Your task to perform on an android device: turn on priority inbox in the gmail app Image 0: 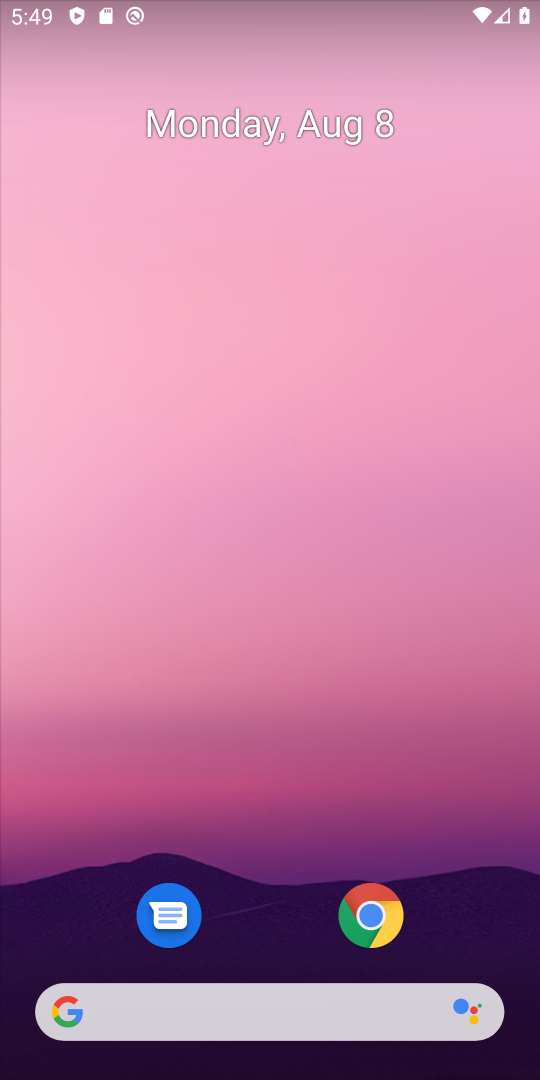
Step 0: press home button
Your task to perform on an android device: turn on priority inbox in the gmail app Image 1: 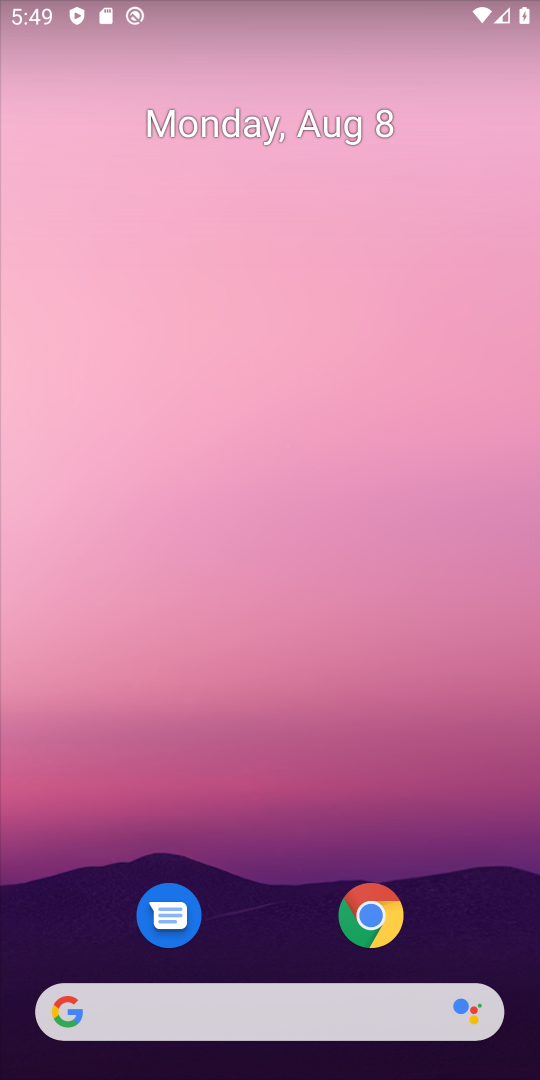
Step 1: drag from (304, 839) to (258, 235)
Your task to perform on an android device: turn on priority inbox in the gmail app Image 2: 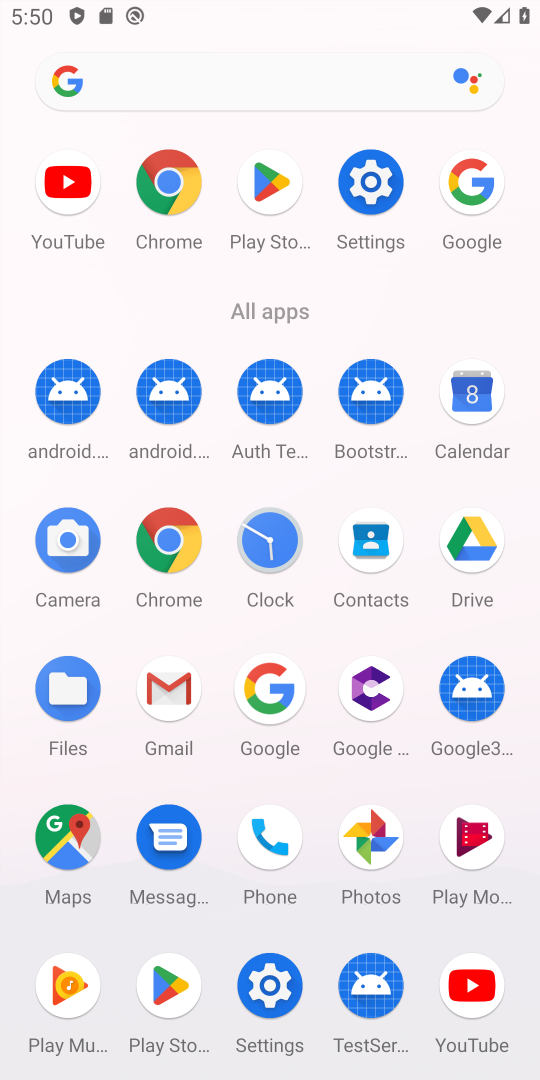
Step 2: click (167, 694)
Your task to perform on an android device: turn on priority inbox in the gmail app Image 3: 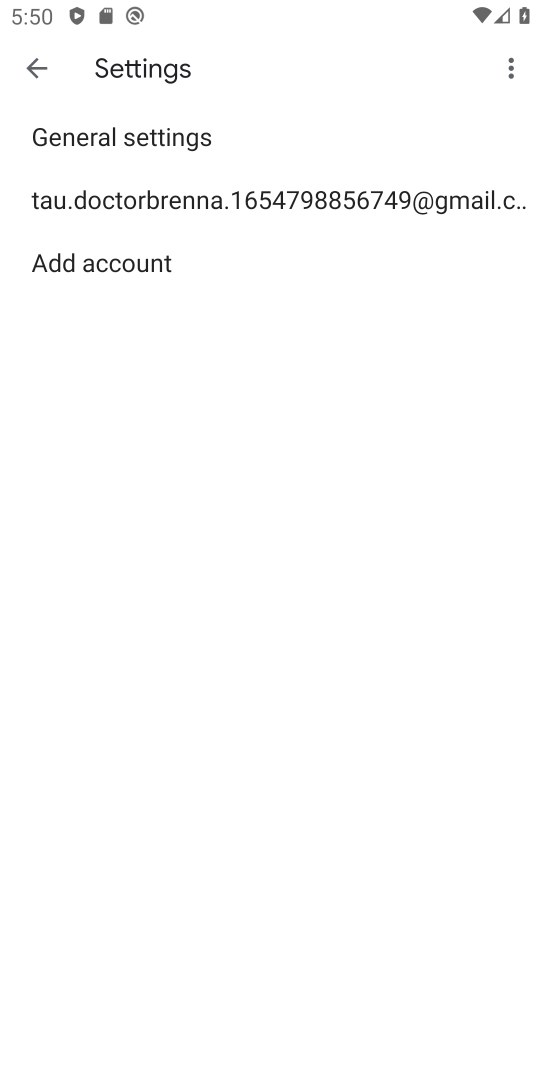
Step 3: click (29, 53)
Your task to perform on an android device: turn on priority inbox in the gmail app Image 4: 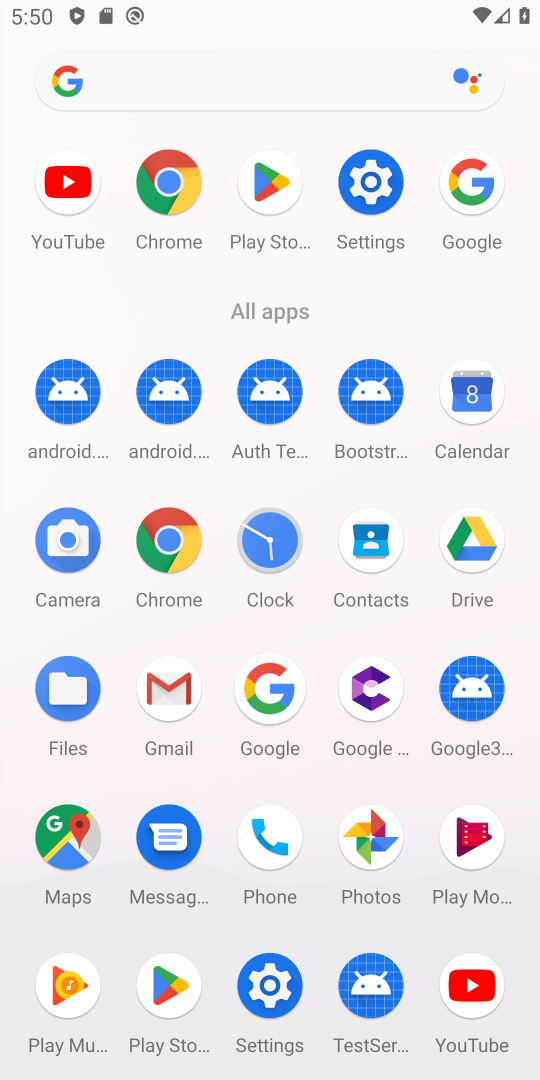
Step 4: click (165, 683)
Your task to perform on an android device: turn on priority inbox in the gmail app Image 5: 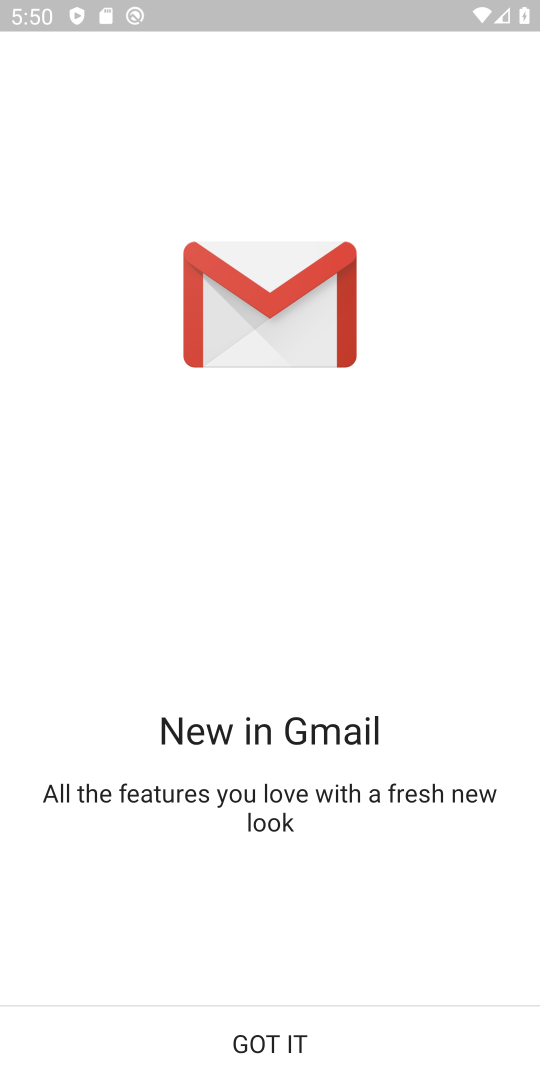
Step 5: click (279, 1054)
Your task to perform on an android device: turn on priority inbox in the gmail app Image 6: 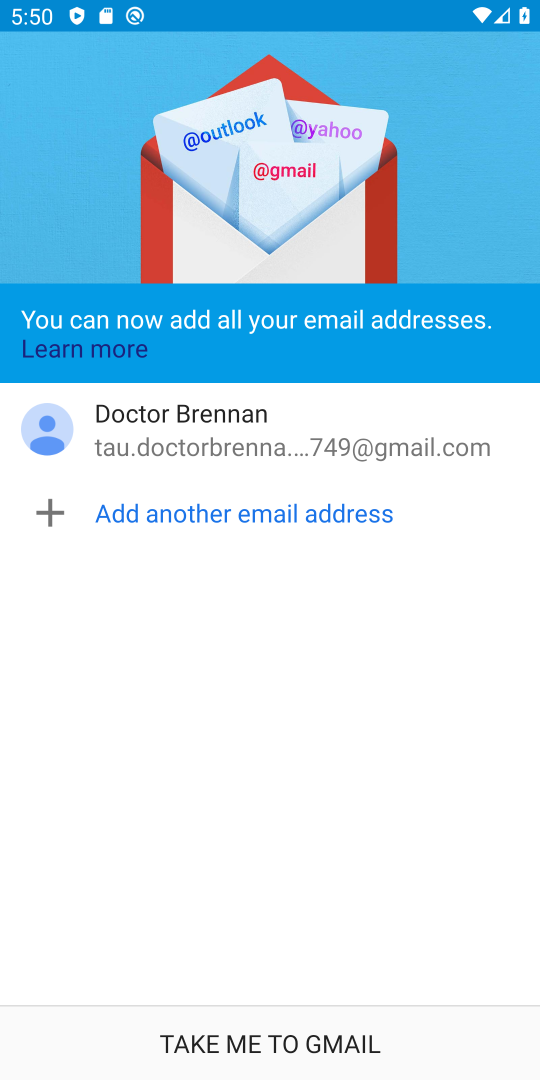
Step 6: click (294, 1034)
Your task to perform on an android device: turn on priority inbox in the gmail app Image 7: 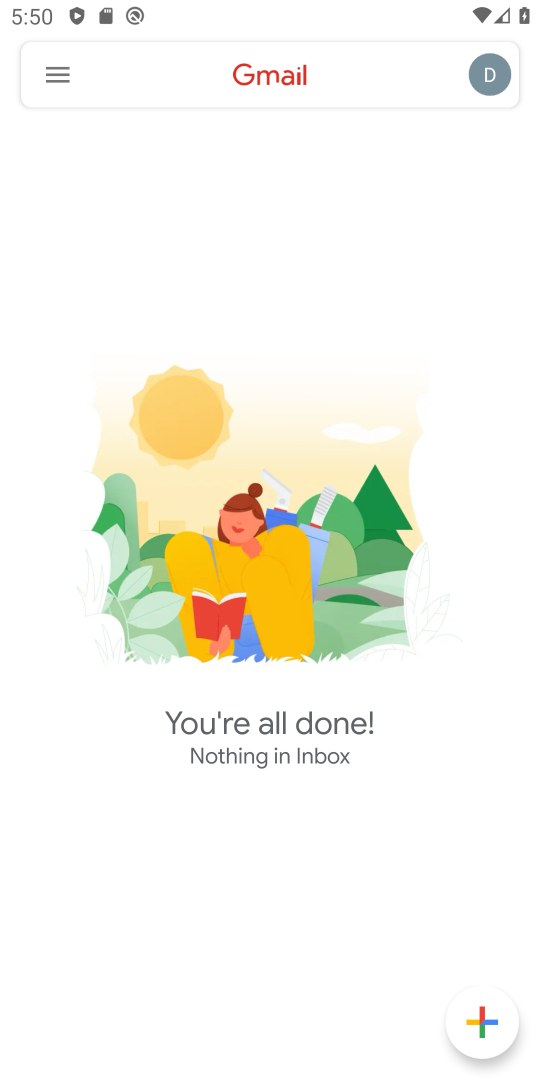
Step 7: click (55, 66)
Your task to perform on an android device: turn on priority inbox in the gmail app Image 8: 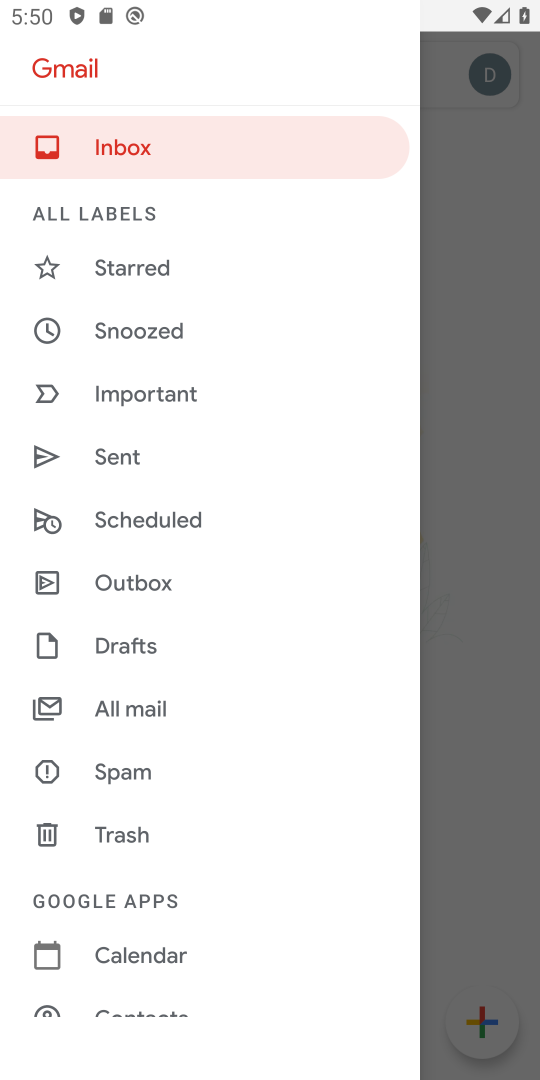
Step 8: drag from (214, 814) to (155, 330)
Your task to perform on an android device: turn on priority inbox in the gmail app Image 9: 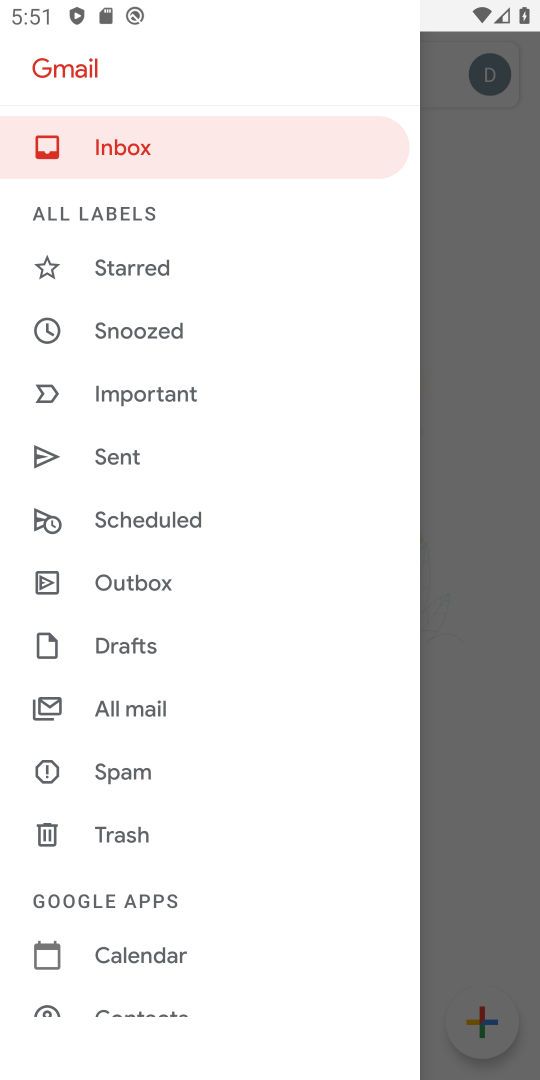
Step 9: click (249, 465)
Your task to perform on an android device: turn on priority inbox in the gmail app Image 10: 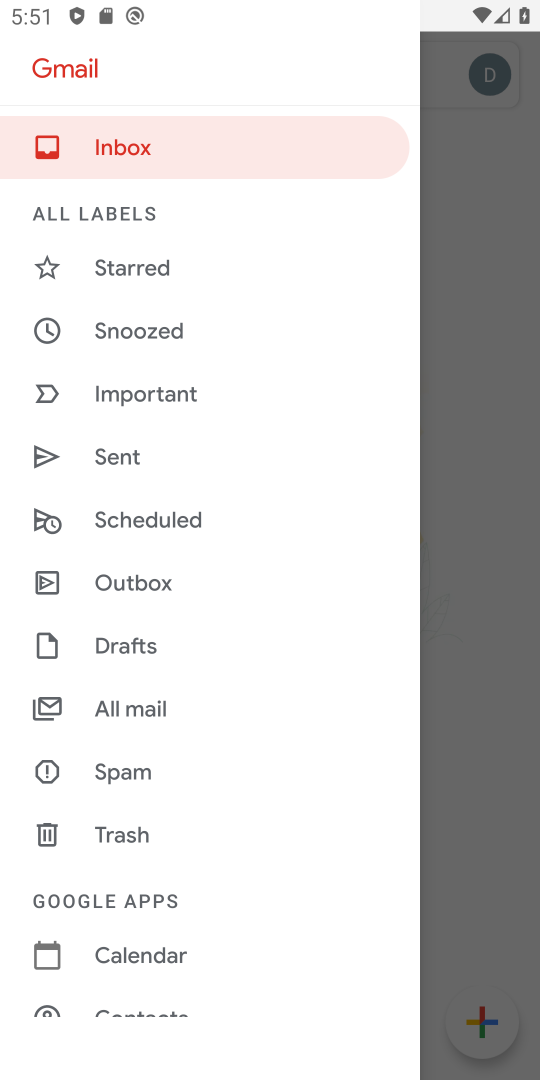
Step 10: drag from (227, 549) to (226, 422)
Your task to perform on an android device: turn on priority inbox in the gmail app Image 11: 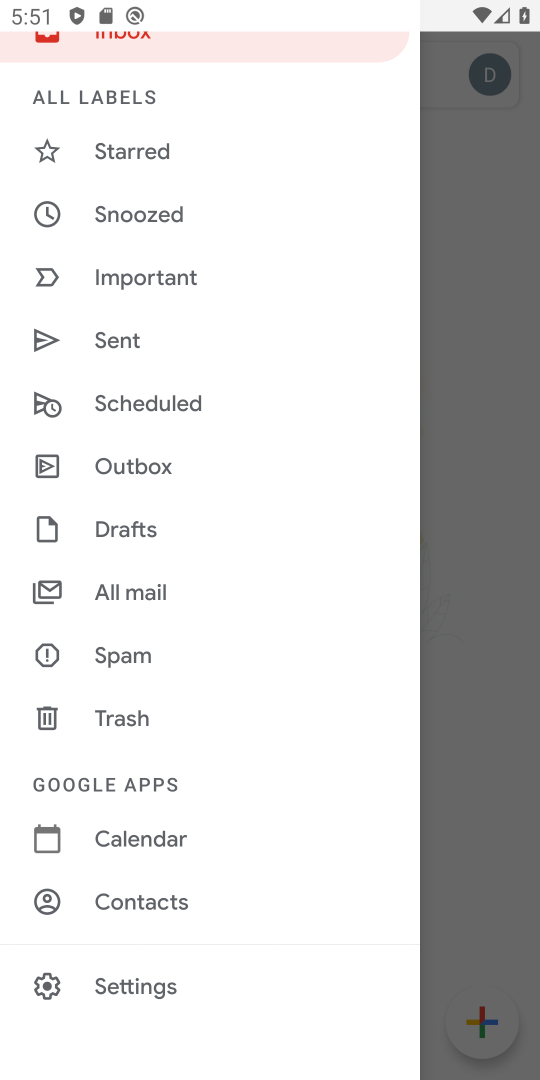
Step 11: click (126, 992)
Your task to perform on an android device: turn on priority inbox in the gmail app Image 12: 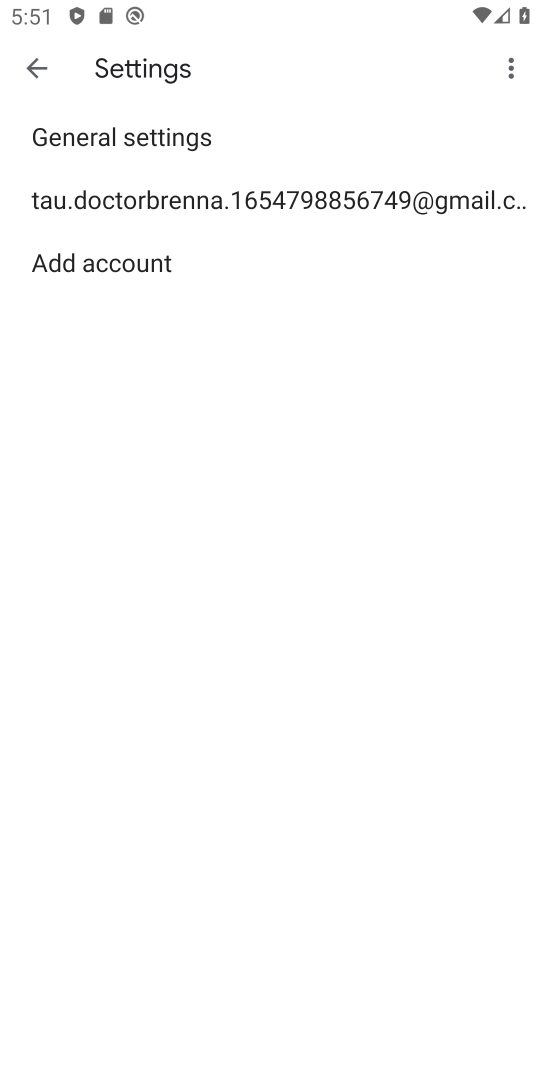
Step 12: click (104, 199)
Your task to perform on an android device: turn on priority inbox in the gmail app Image 13: 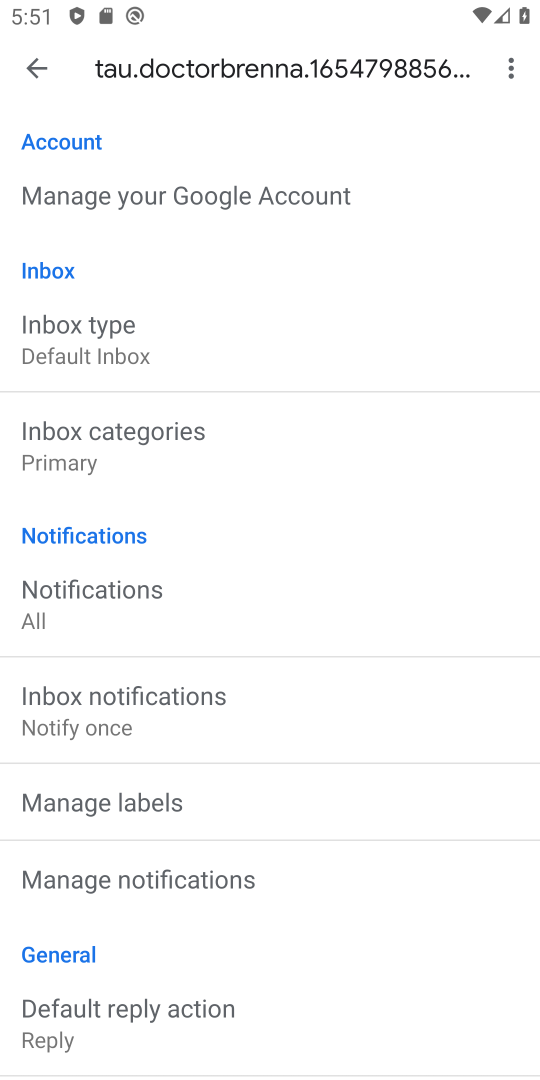
Step 13: click (99, 327)
Your task to perform on an android device: turn on priority inbox in the gmail app Image 14: 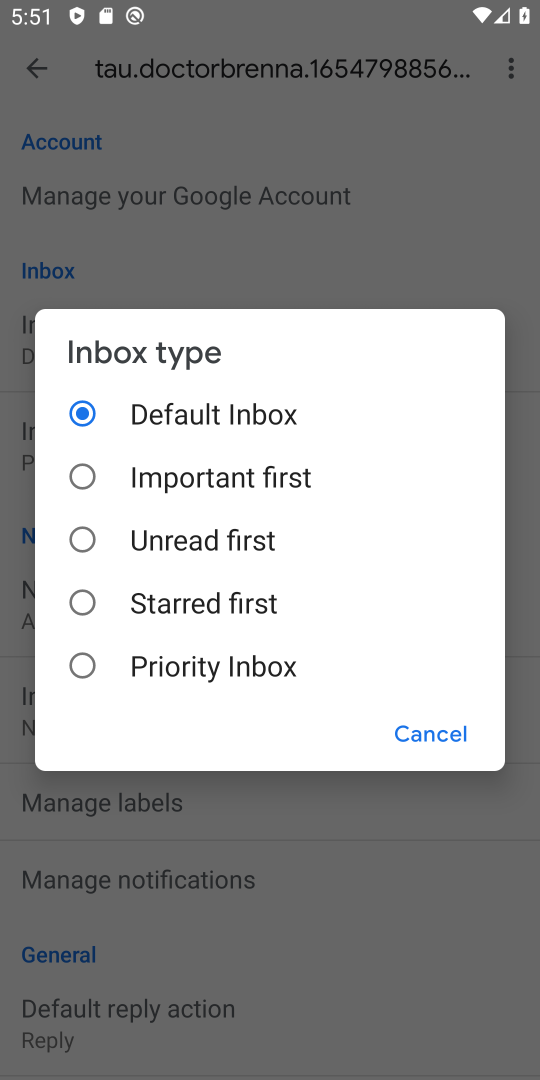
Step 14: click (85, 668)
Your task to perform on an android device: turn on priority inbox in the gmail app Image 15: 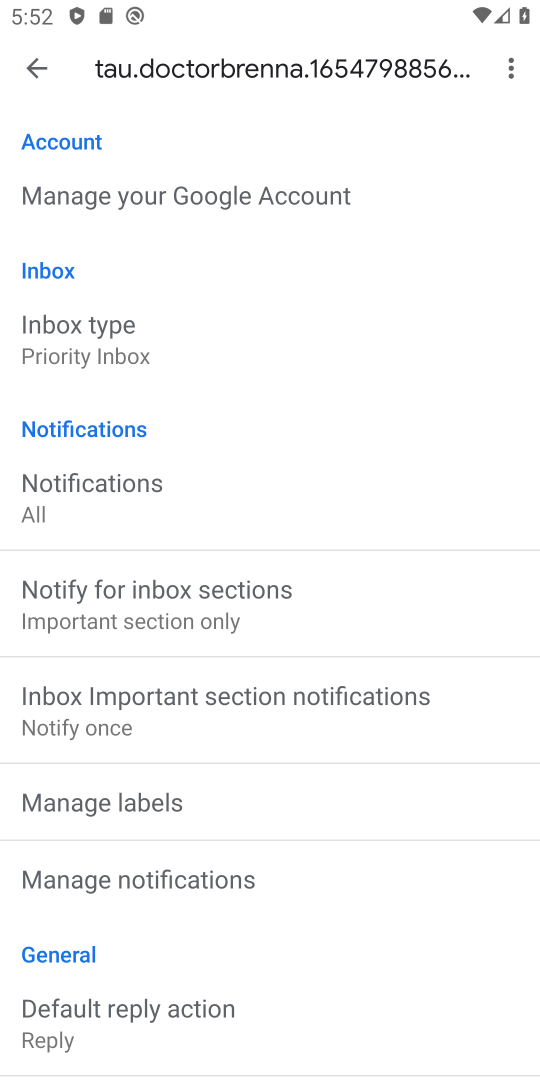
Step 15: task complete